Your task to perform on an android device: turn on wifi Image 0: 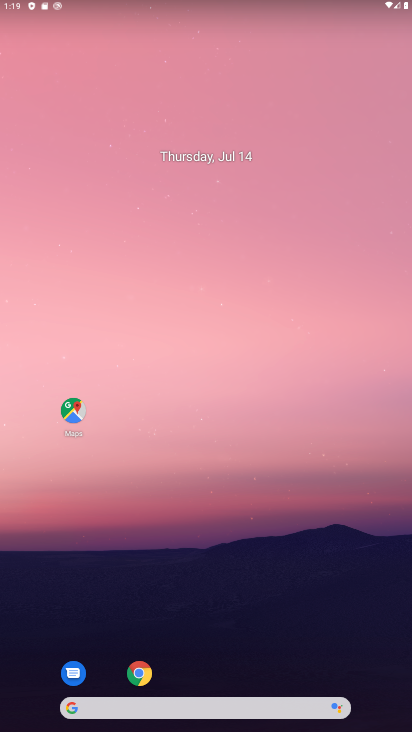
Step 0: drag from (297, 499) to (352, 0)
Your task to perform on an android device: turn on wifi Image 1: 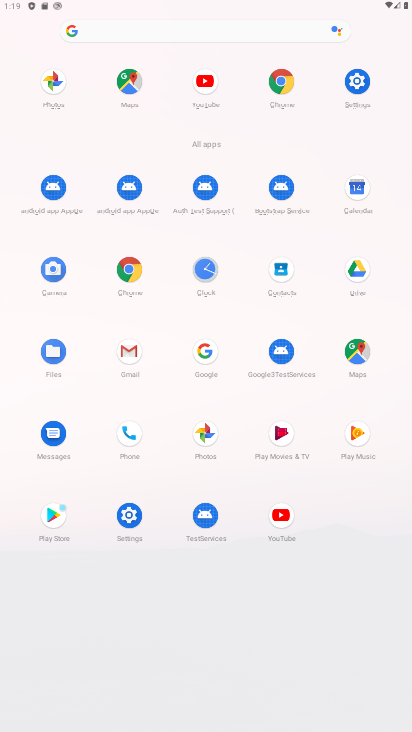
Step 1: click (368, 78)
Your task to perform on an android device: turn on wifi Image 2: 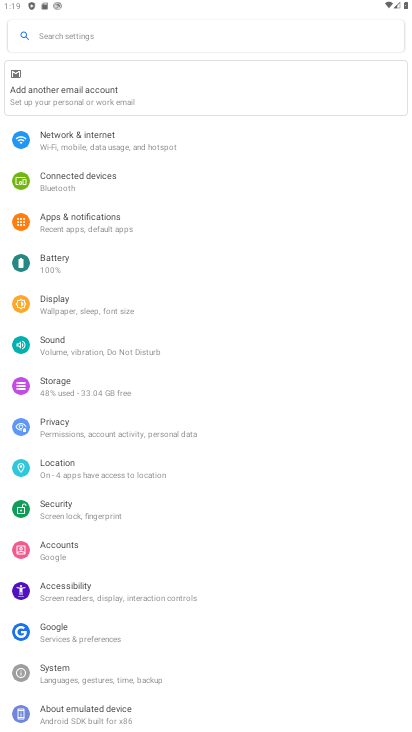
Step 2: click (108, 154)
Your task to perform on an android device: turn on wifi Image 3: 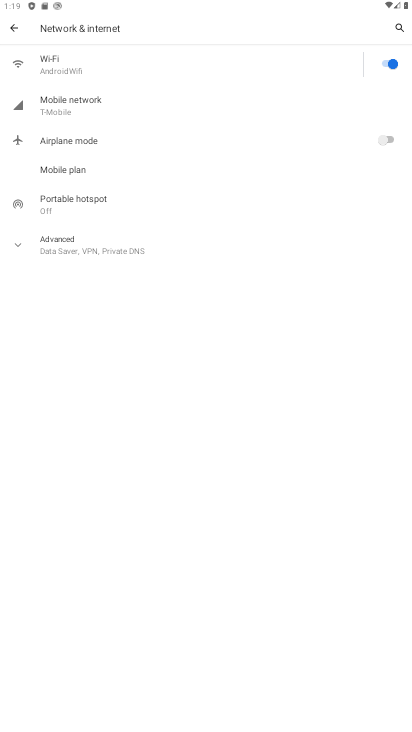
Step 3: task complete